Your task to perform on an android device: What is the recent news? Image 0: 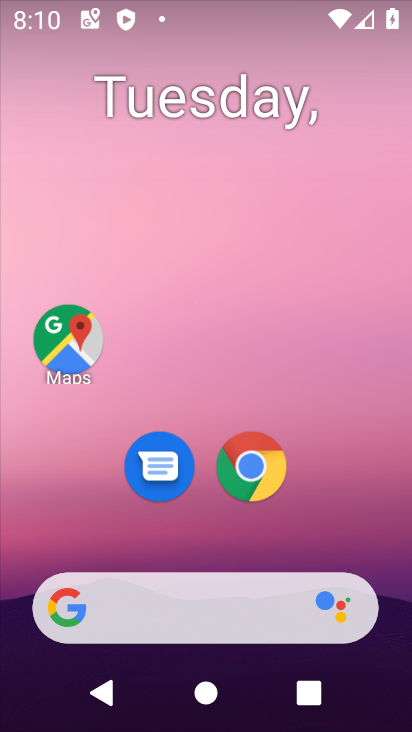
Step 0: click (227, 602)
Your task to perform on an android device: What is the recent news? Image 1: 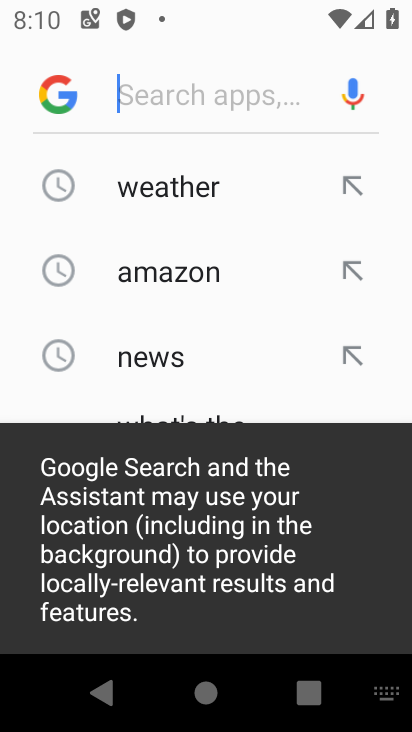
Step 1: click (155, 335)
Your task to perform on an android device: What is the recent news? Image 2: 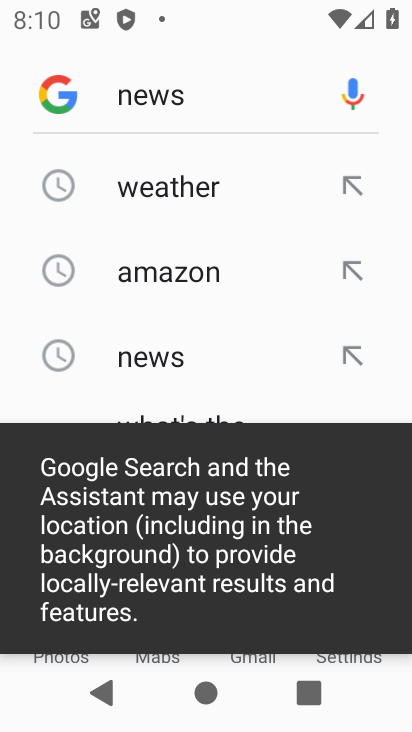
Step 2: task complete